Your task to perform on an android device: Open wifi settings Image 0: 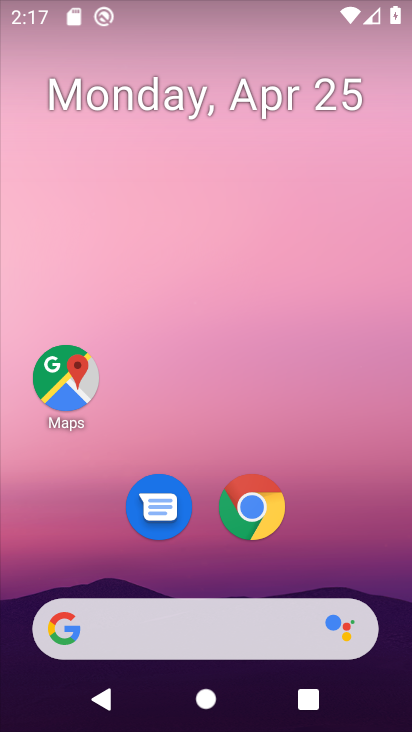
Step 0: drag from (194, 628) to (331, 98)
Your task to perform on an android device: Open wifi settings Image 1: 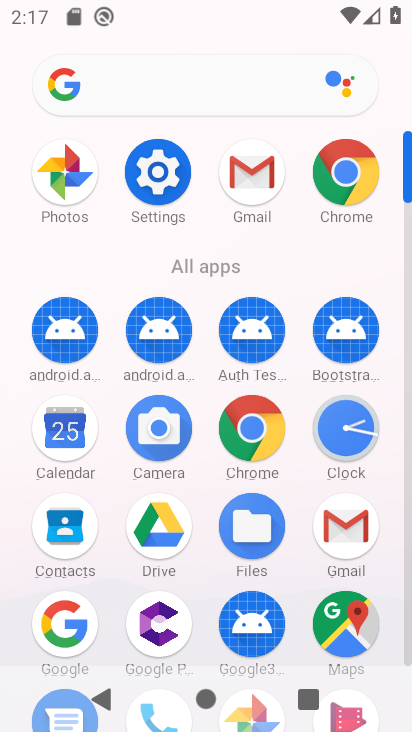
Step 1: click (150, 178)
Your task to perform on an android device: Open wifi settings Image 2: 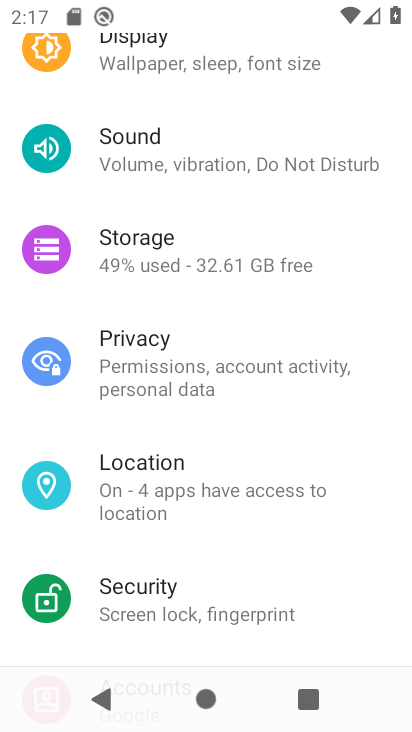
Step 2: drag from (280, 104) to (168, 606)
Your task to perform on an android device: Open wifi settings Image 3: 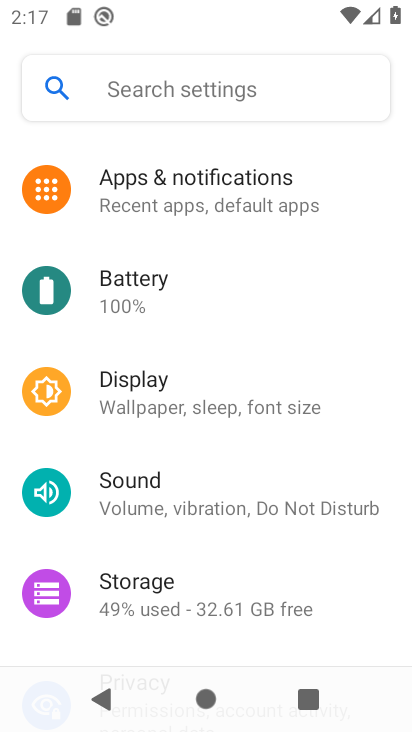
Step 3: click (260, 191)
Your task to perform on an android device: Open wifi settings Image 4: 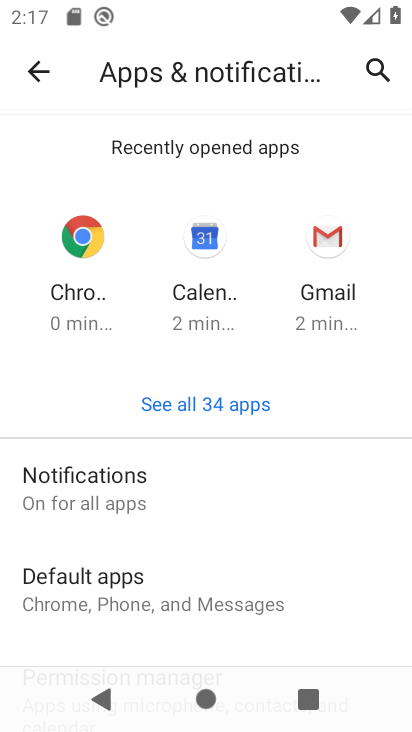
Step 4: click (37, 69)
Your task to perform on an android device: Open wifi settings Image 5: 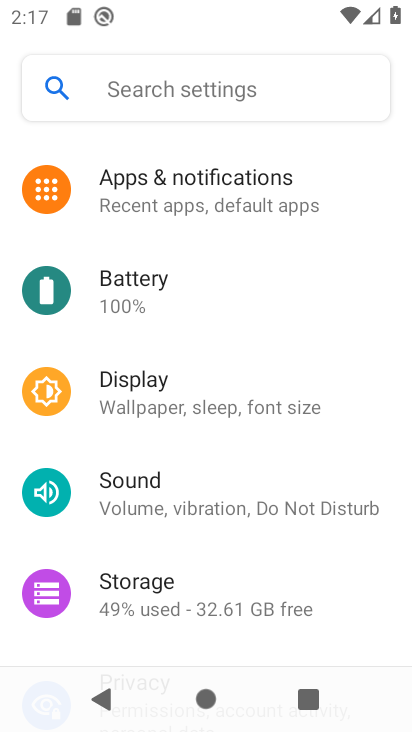
Step 5: drag from (318, 241) to (231, 537)
Your task to perform on an android device: Open wifi settings Image 6: 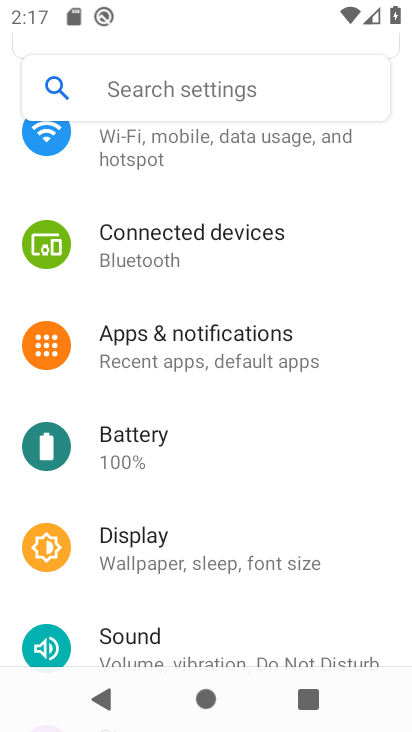
Step 6: drag from (290, 236) to (219, 525)
Your task to perform on an android device: Open wifi settings Image 7: 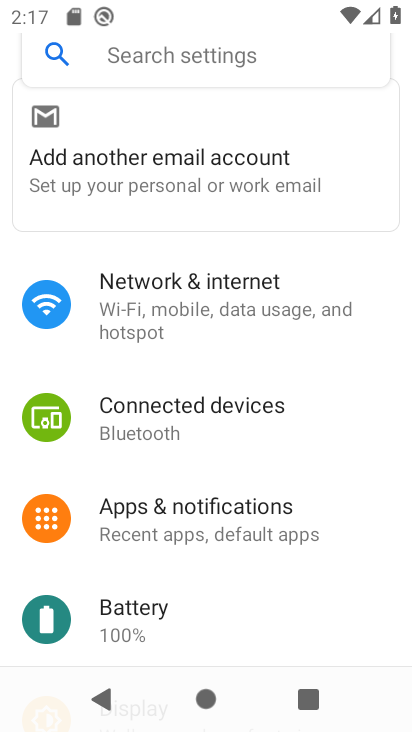
Step 7: click (203, 319)
Your task to perform on an android device: Open wifi settings Image 8: 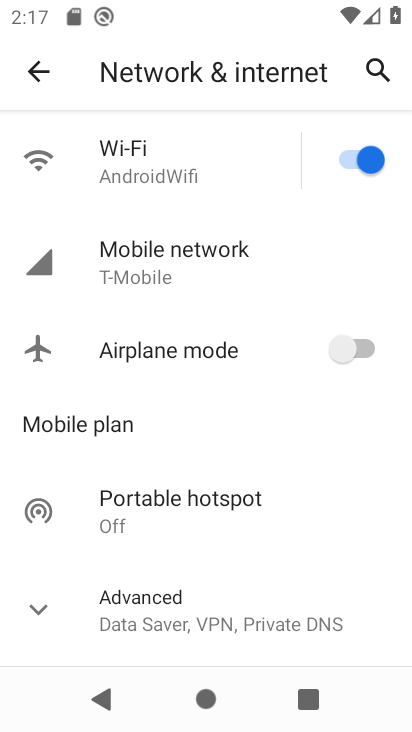
Step 8: click (174, 132)
Your task to perform on an android device: Open wifi settings Image 9: 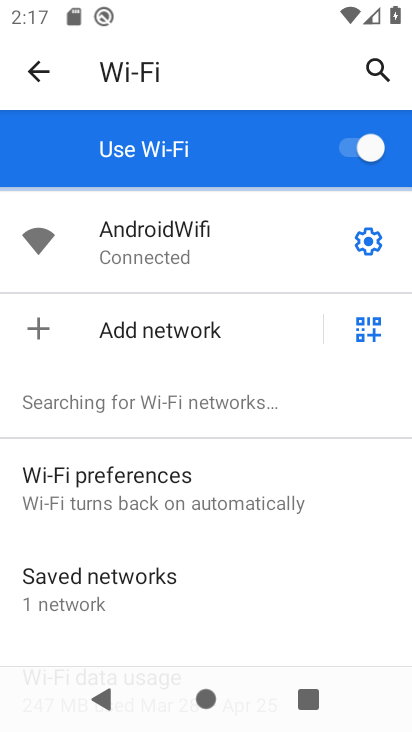
Step 9: task complete